Your task to perform on an android device: check out phone information Image 0: 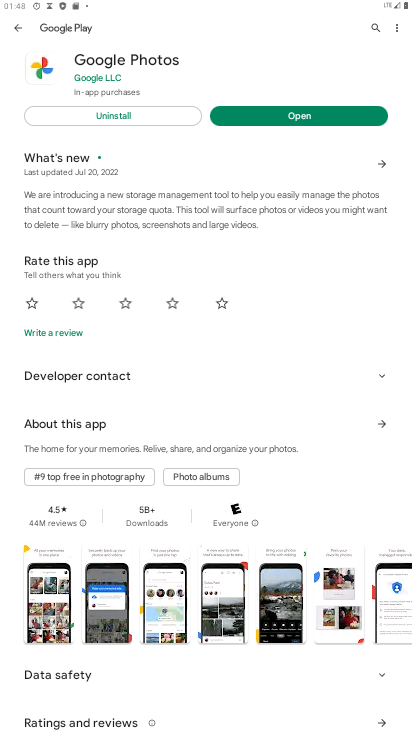
Step 0: press home button
Your task to perform on an android device: check out phone information Image 1: 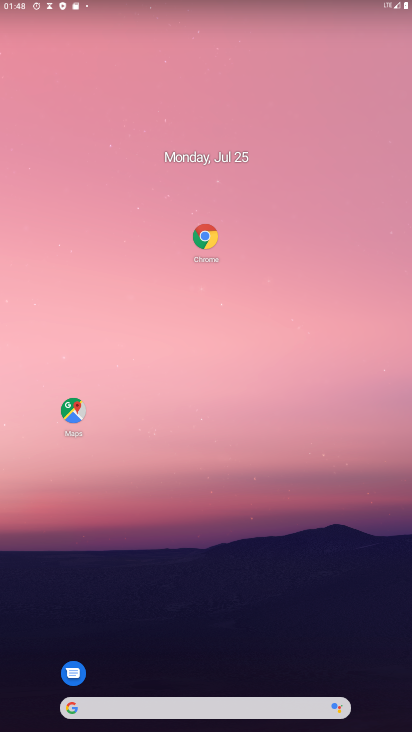
Step 1: drag from (158, 692) to (220, 11)
Your task to perform on an android device: check out phone information Image 2: 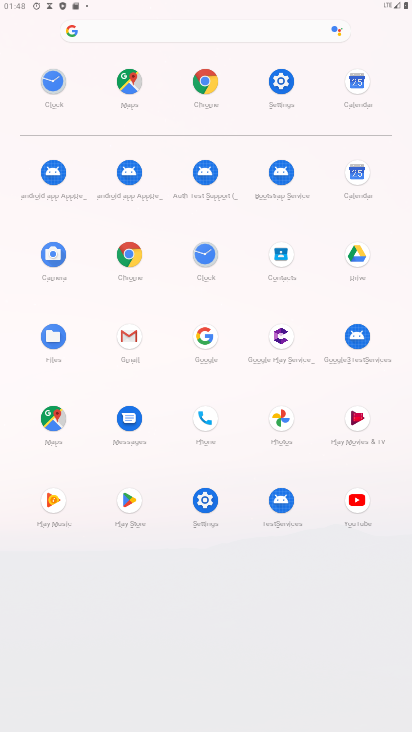
Step 2: click (282, 77)
Your task to perform on an android device: check out phone information Image 3: 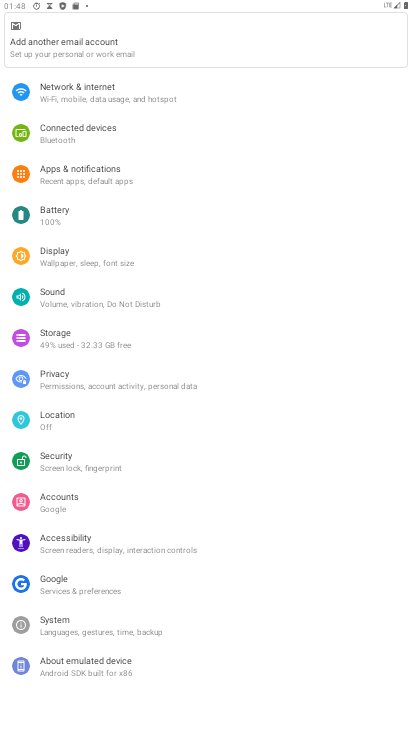
Step 3: click (118, 681)
Your task to perform on an android device: check out phone information Image 4: 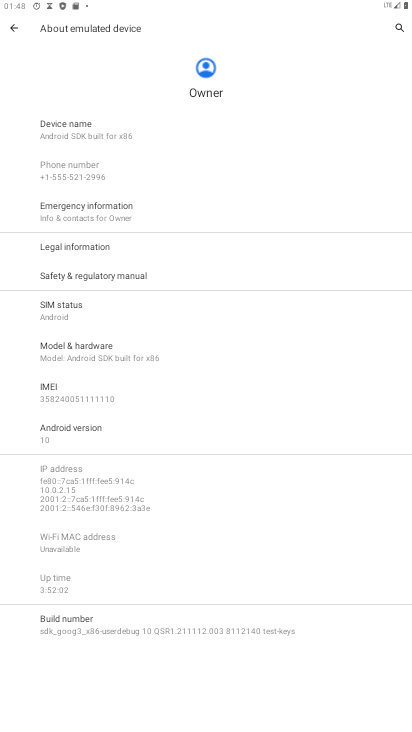
Step 4: task complete